Your task to perform on an android device: open the mobile data screen to see how much data has been used Image 0: 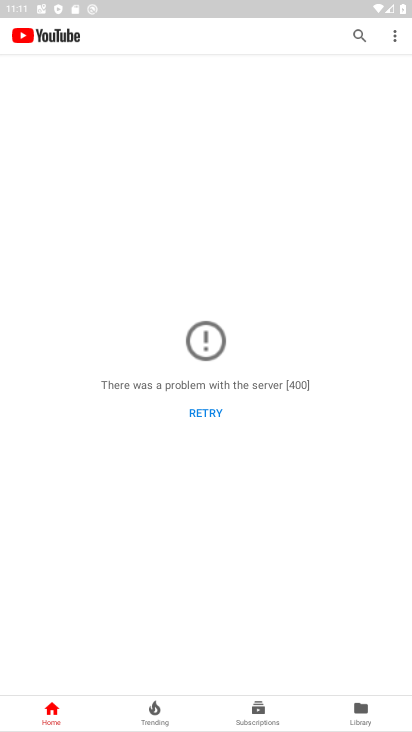
Step 0: press home button
Your task to perform on an android device: open the mobile data screen to see how much data has been used Image 1: 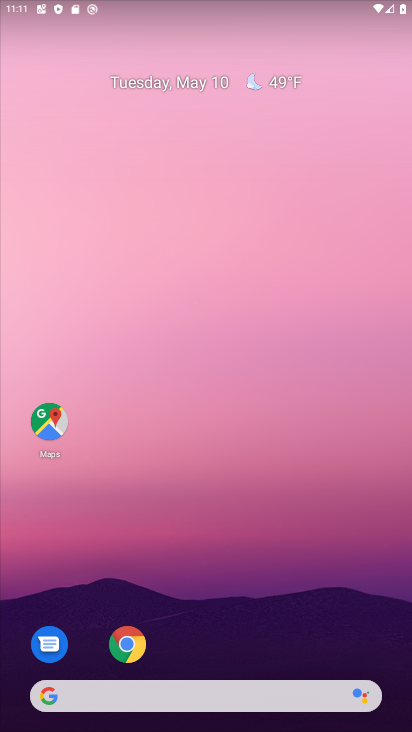
Step 1: drag from (196, 646) to (202, 196)
Your task to perform on an android device: open the mobile data screen to see how much data has been used Image 2: 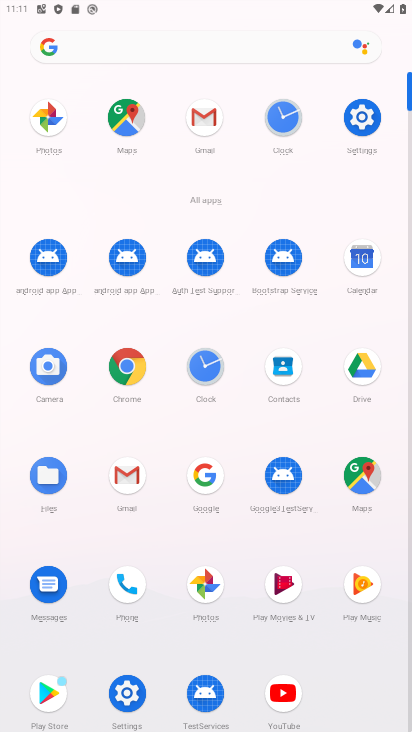
Step 2: click (352, 128)
Your task to perform on an android device: open the mobile data screen to see how much data has been used Image 3: 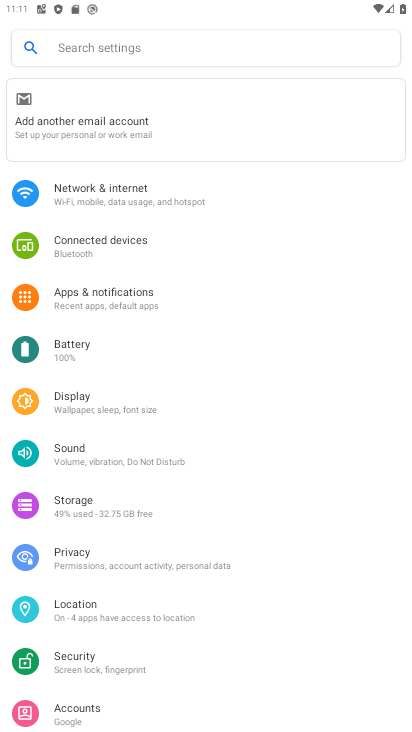
Step 3: click (164, 203)
Your task to perform on an android device: open the mobile data screen to see how much data has been used Image 4: 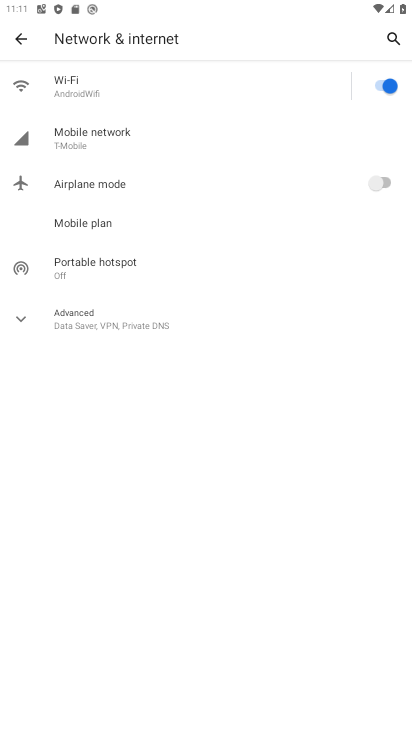
Step 4: click (134, 151)
Your task to perform on an android device: open the mobile data screen to see how much data has been used Image 5: 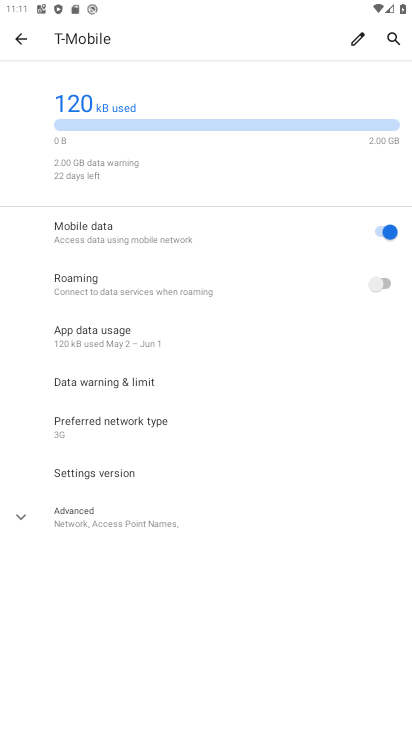
Step 5: task complete